Your task to perform on an android device: Open settings on Google Maps Image 0: 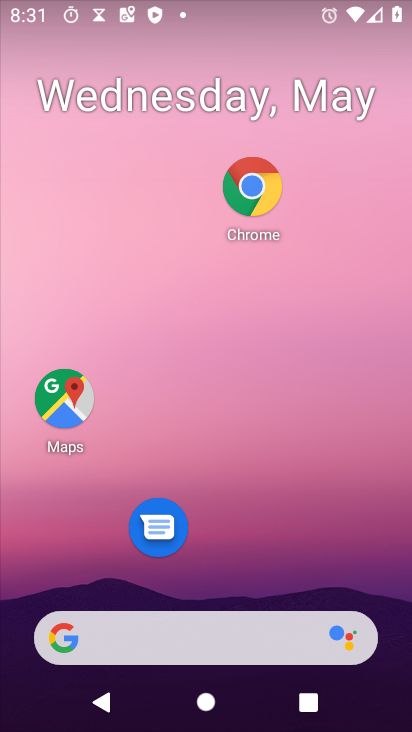
Step 0: click (58, 402)
Your task to perform on an android device: Open settings on Google Maps Image 1: 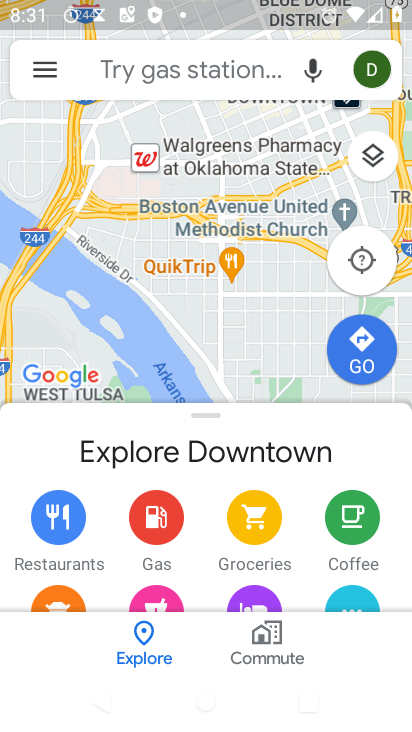
Step 1: click (43, 61)
Your task to perform on an android device: Open settings on Google Maps Image 2: 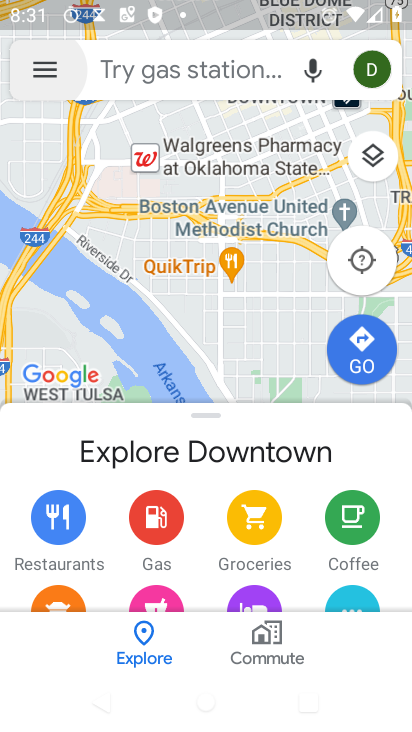
Step 2: click (43, 61)
Your task to perform on an android device: Open settings on Google Maps Image 3: 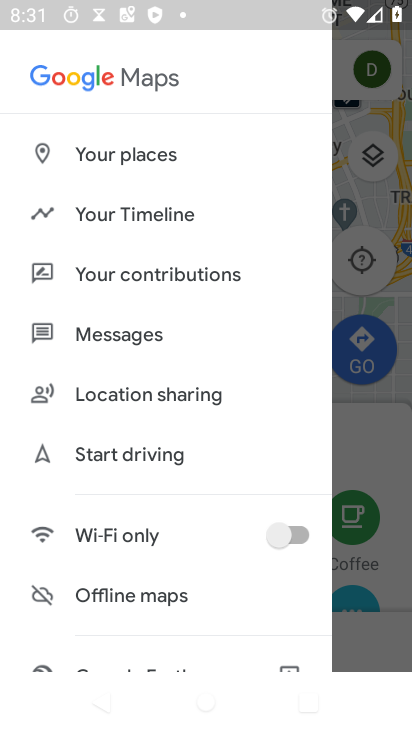
Step 3: drag from (208, 637) to (247, 201)
Your task to perform on an android device: Open settings on Google Maps Image 4: 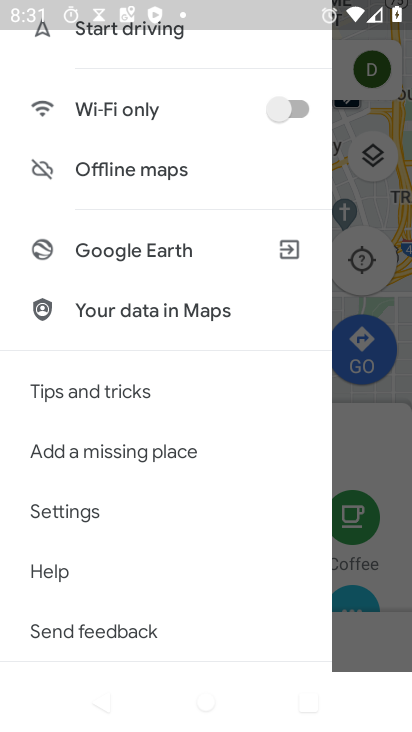
Step 4: click (61, 510)
Your task to perform on an android device: Open settings on Google Maps Image 5: 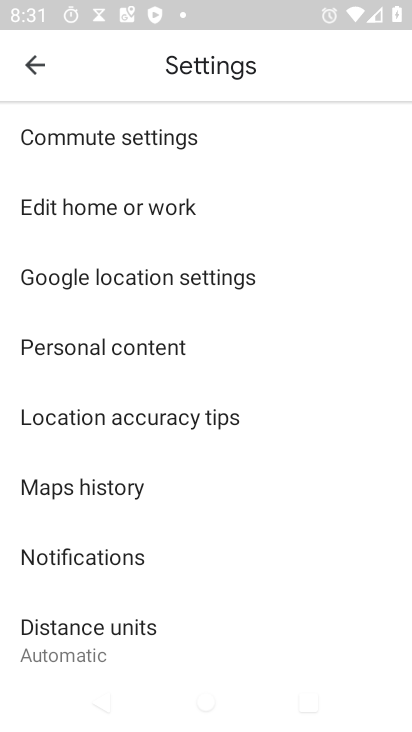
Step 5: task complete